Your task to perform on an android device: allow cookies in the chrome app Image 0: 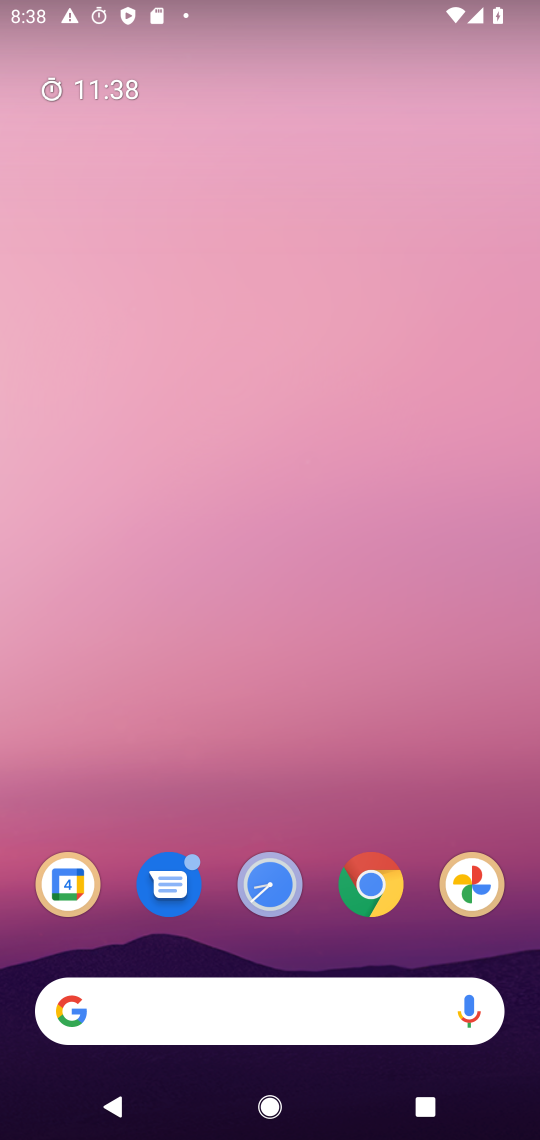
Step 0: press home button
Your task to perform on an android device: allow cookies in the chrome app Image 1: 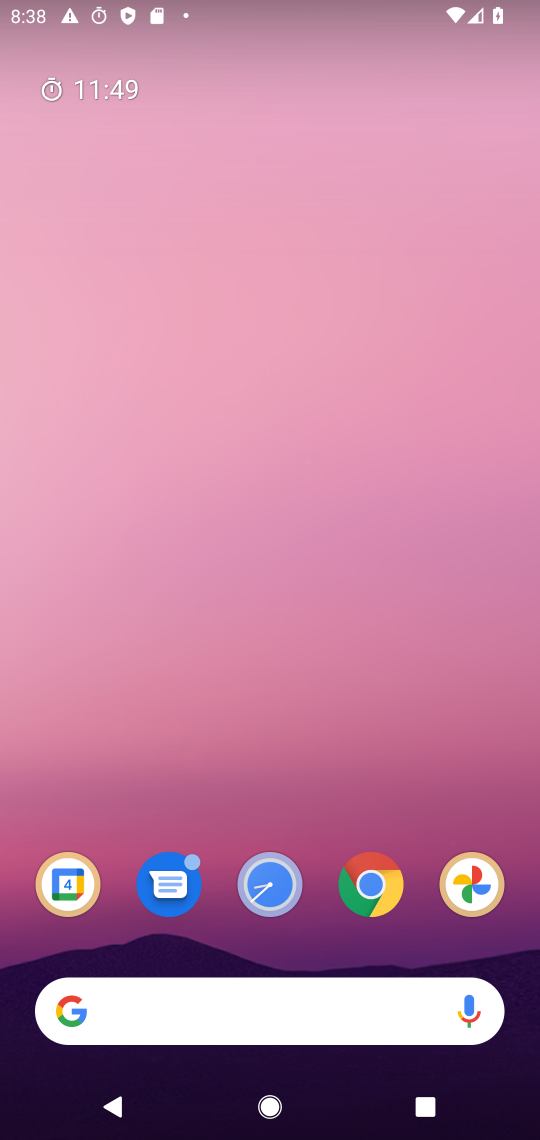
Step 1: click (373, 894)
Your task to perform on an android device: allow cookies in the chrome app Image 2: 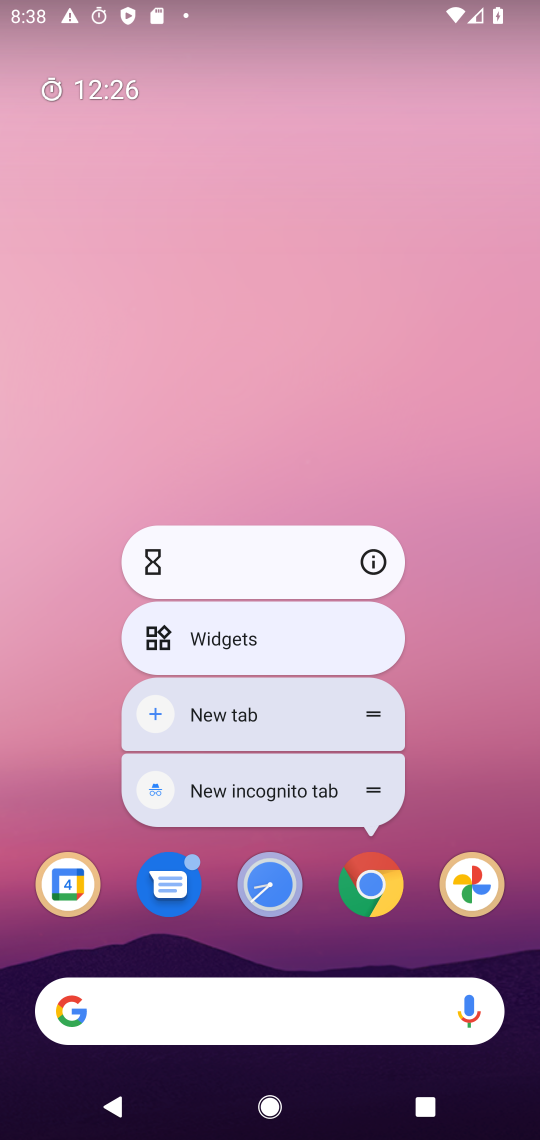
Step 2: click (356, 888)
Your task to perform on an android device: allow cookies in the chrome app Image 3: 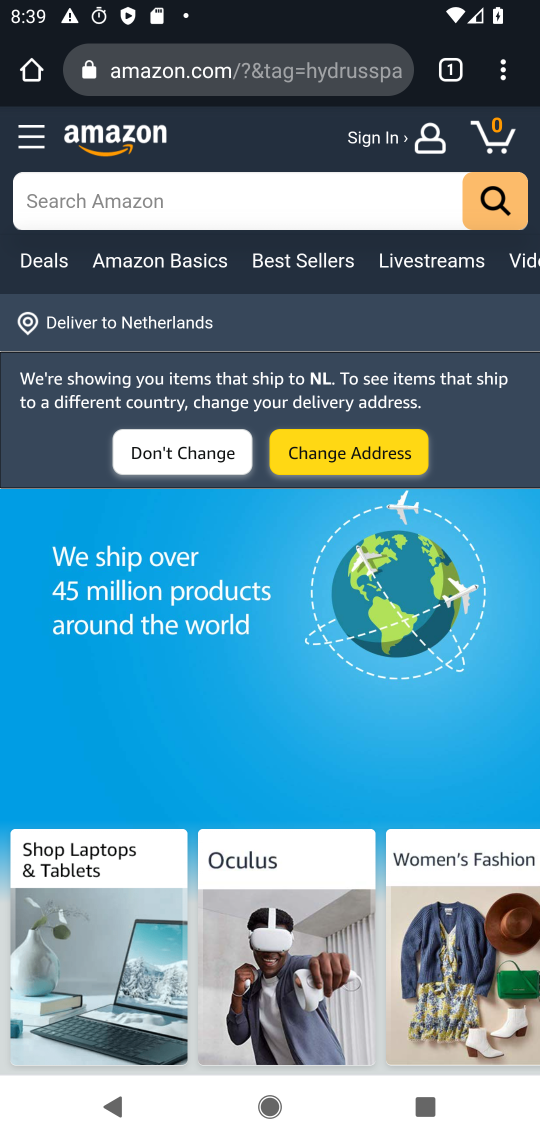
Step 3: drag from (506, 68) to (287, 869)
Your task to perform on an android device: allow cookies in the chrome app Image 4: 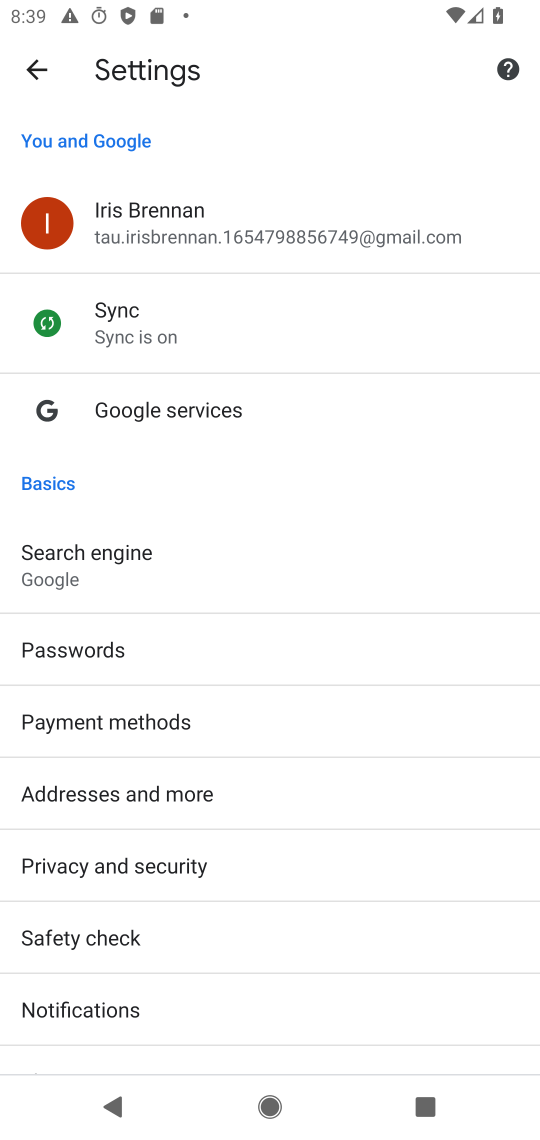
Step 4: drag from (281, 967) to (350, 251)
Your task to perform on an android device: allow cookies in the chrome app Image 5: 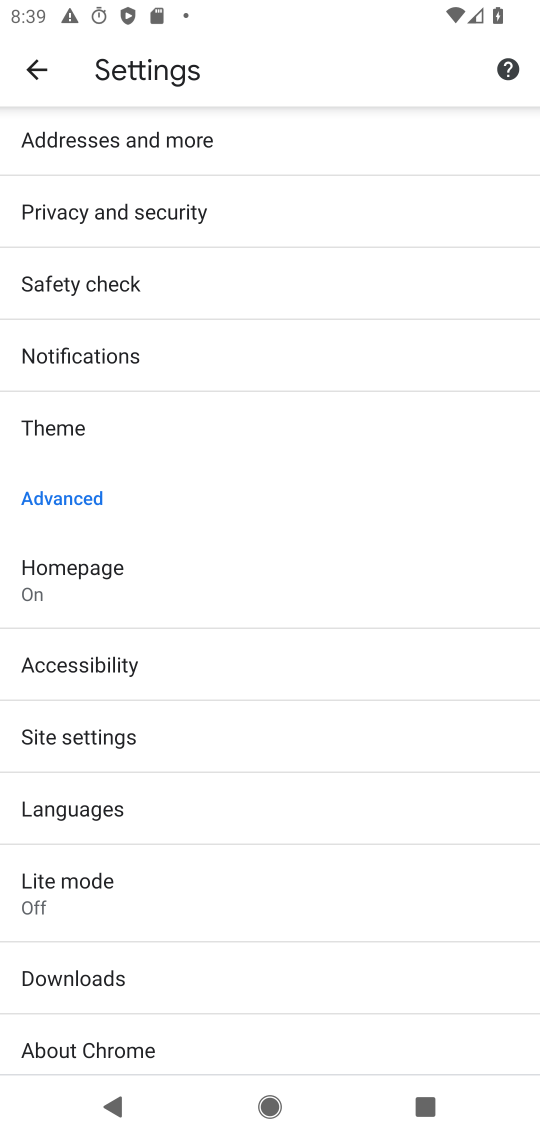
Step 5: click (90, 745)
Your task to perform on an android device: allow cookies in the chrome app Image 6: 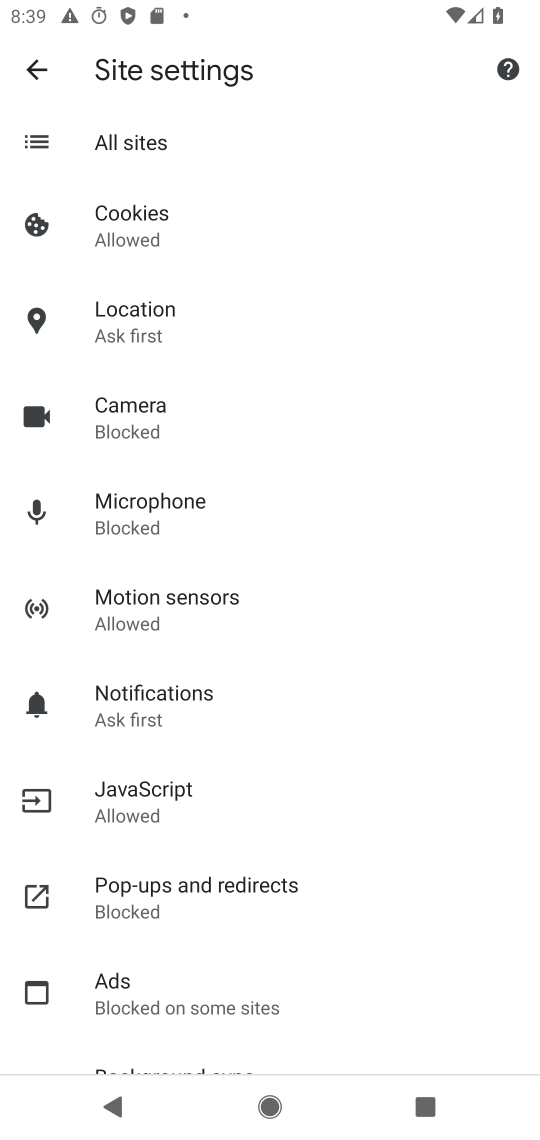
Step 6: click (115, 224)
Your task to perform on an android device: allow cookies in the chrome app Image 7: 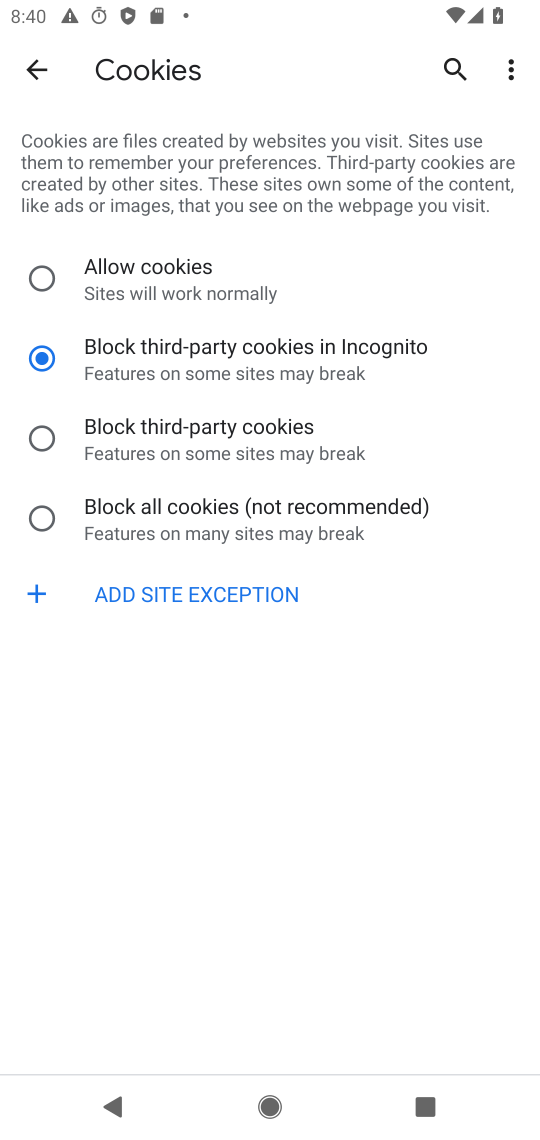
Step 7: click (48, 289)
Your task to perform on an android device: allow cookies in the chrome app Image 8: 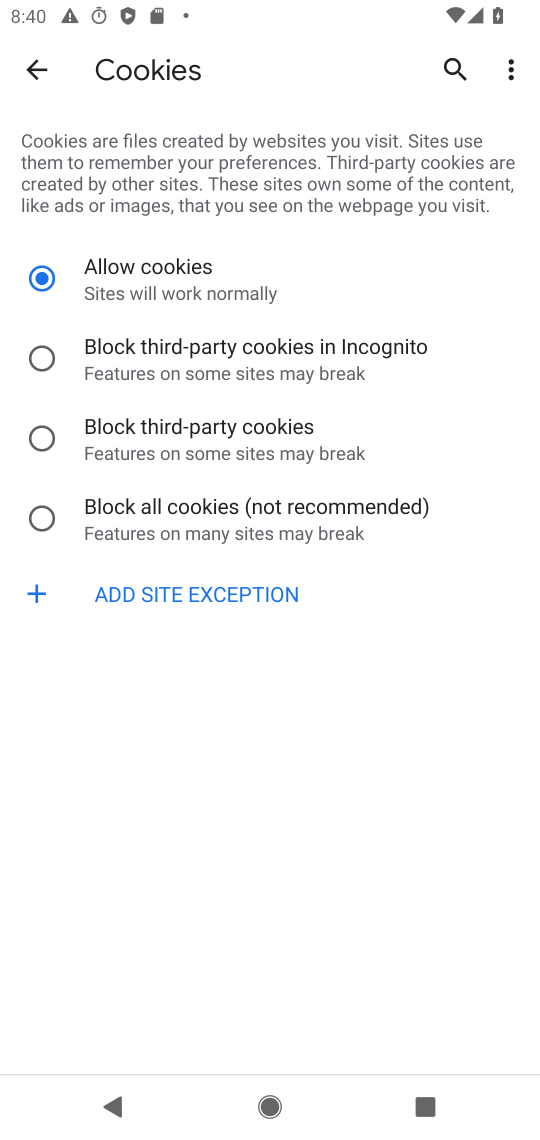
Step 8: task complete